Your task to perform on an android device: toggle javascript in the chrome app Image 0: 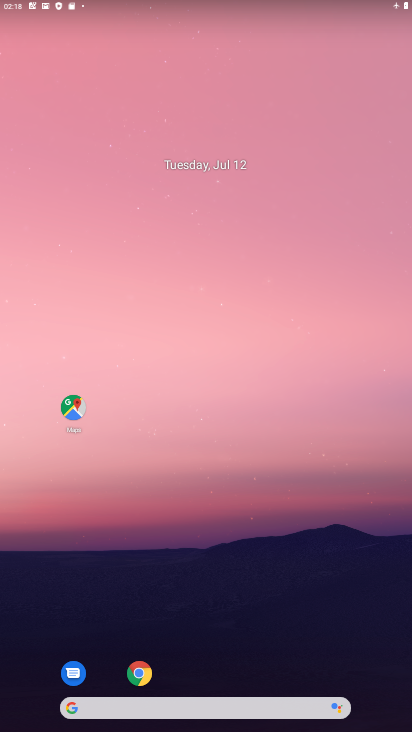
Step 0: press home button
Your task to perform on an android device: toggle javascript in the chrome app Image 1: 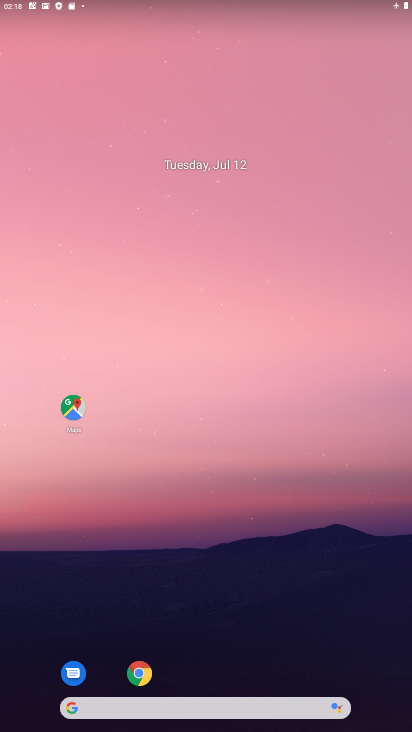
Step 1: drag from (244, 624) to (324, 106)
Your task to perform on an android device: toggle javascript in the chrome app Image 2: 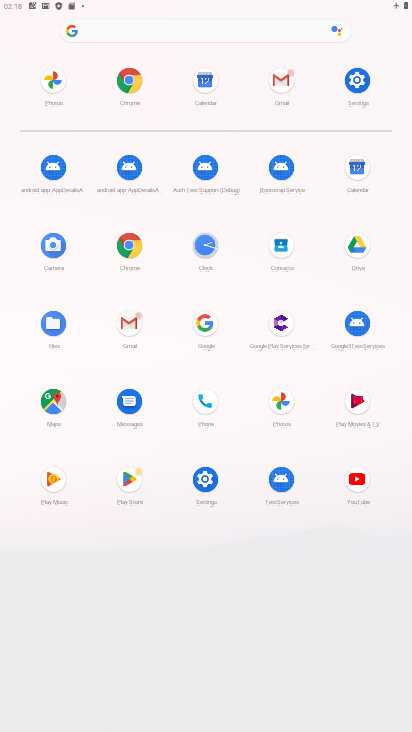
Step 2: click (134, 245)
Your task to perform on an android device: toggle javascript in the chrome app Image 3: 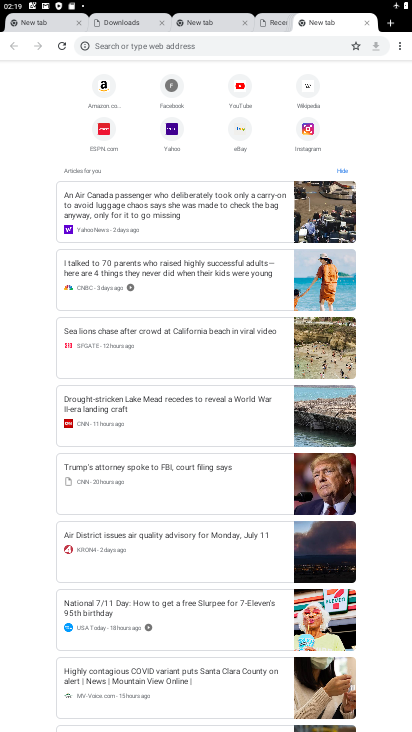
Step 3: drag from (393, 41) to (313, 212)
Your task to perform on an android device: toggle javascript in the chrome app Image 4: 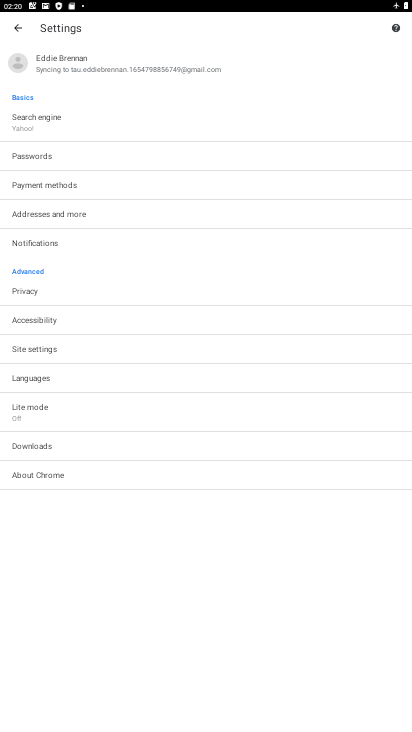
Step 4: click (210, 345)
Your task to perform on an android device: toggle javascript in the chrome app Image 5: 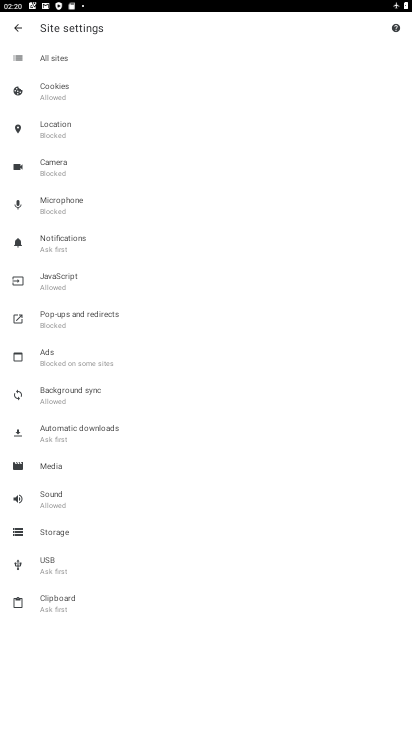
Step 5: click (82, 281)
Your task to perform on an android device: toggle javascript in the chrome app Image 6: 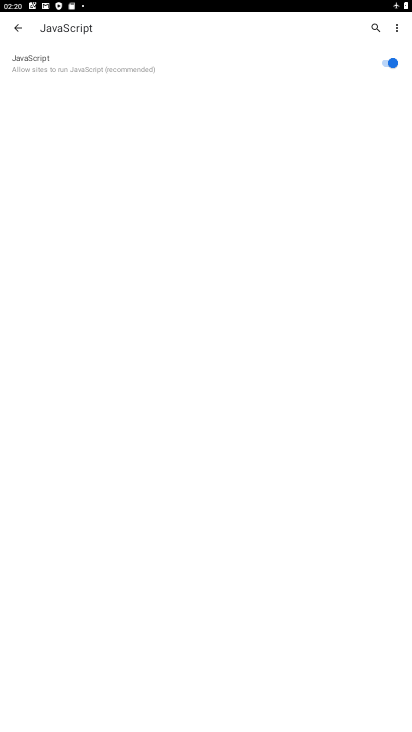
Step 6: click (384, 54)
Your task to perform on an android device: toggle javascript in the chrome app Image 7: 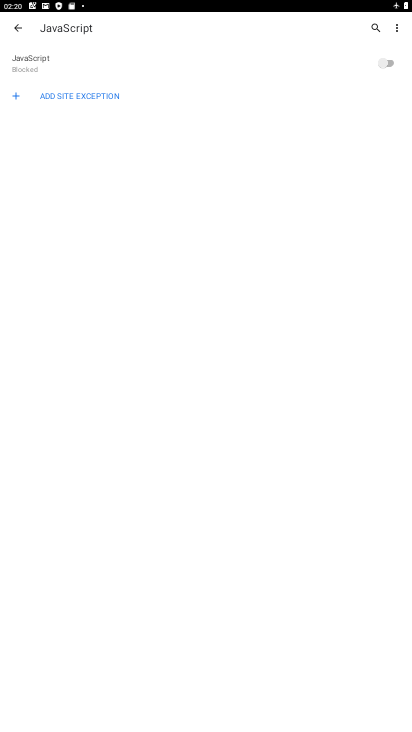
Step 7: task complete